Your task to perform on an android device: Open eBay Image 0: 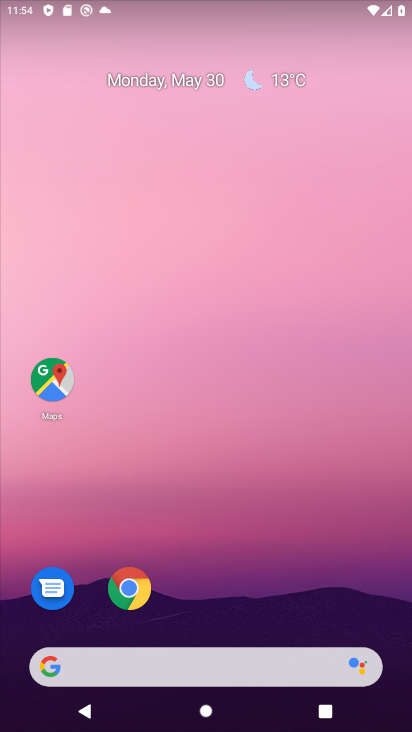
Step 0: click (127, 580)
Your task to perform on an android device: Open eBay Image 1: 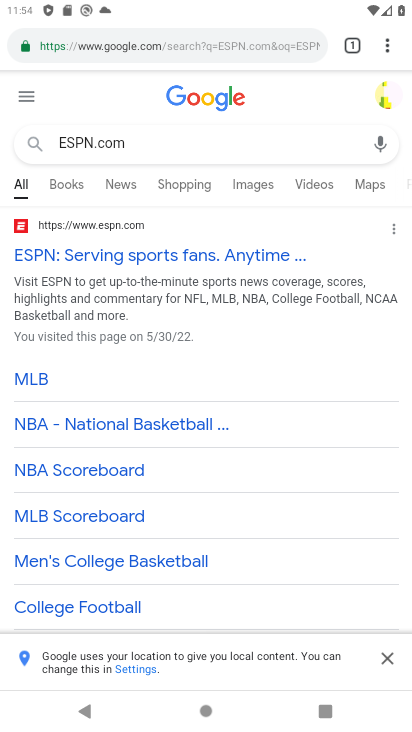
Step 1: click (281, 36)
Your task to perform on an android device: Open eBay Image 2: 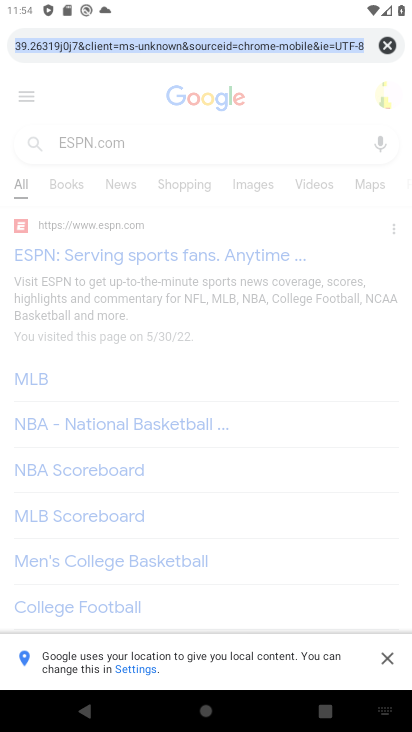
Step 2: click (389, 37)
Your task to perform on an android device: Open eBay Image 3: 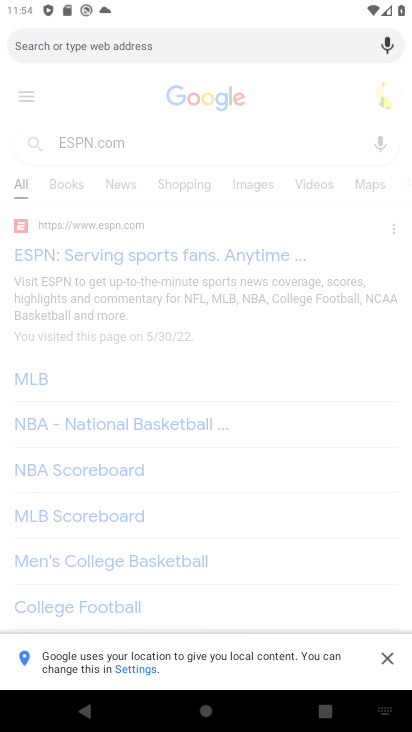
Step 3: type "eBay"
Your task to perform on an android device: Open eBay Image 4: 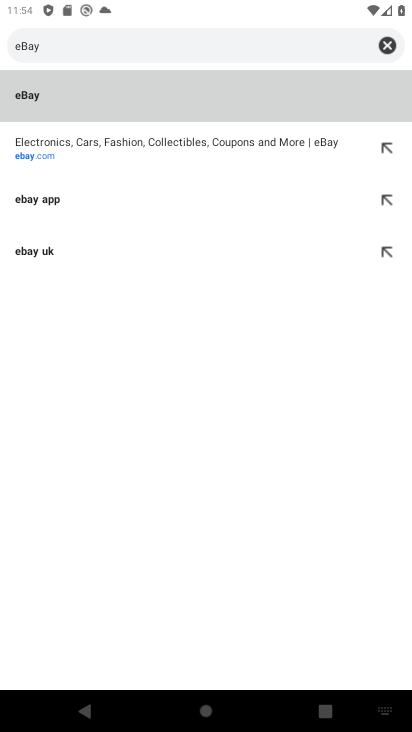
Step 4: click (10, 86)
Your task to perform on an android device: Open eBay Image 5: 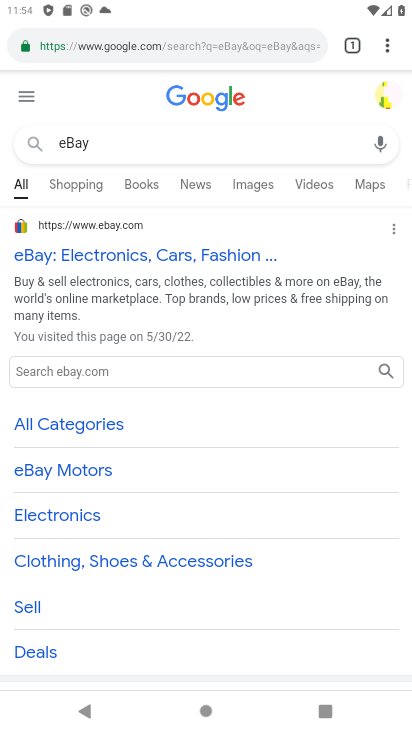
Step 5: task complete